Your task to perform on an android device: Go to internet settings Image 0: 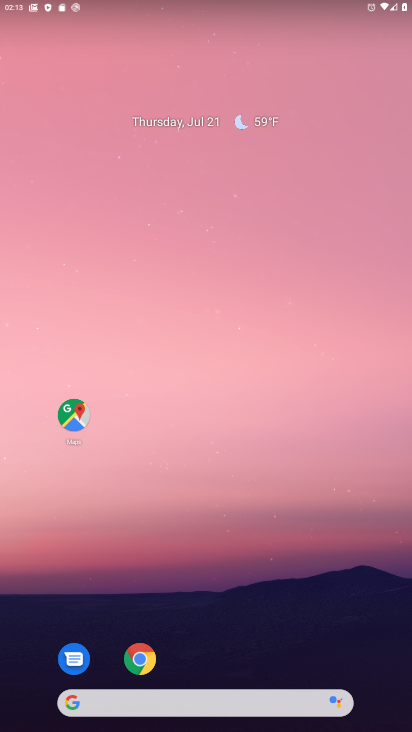
Step 0: press home button
Your task to perform on an android device: Go to internet settings Image 1: 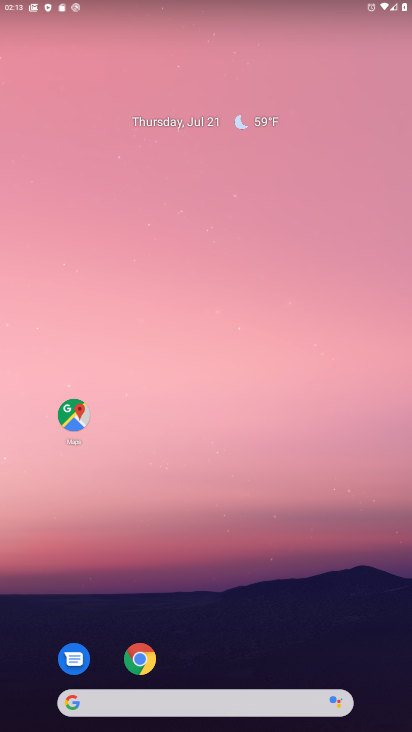
Step 1: drag from (241, 481) to (198, 30)
Your task to perform on an android device: Go to internet settings Image 2: 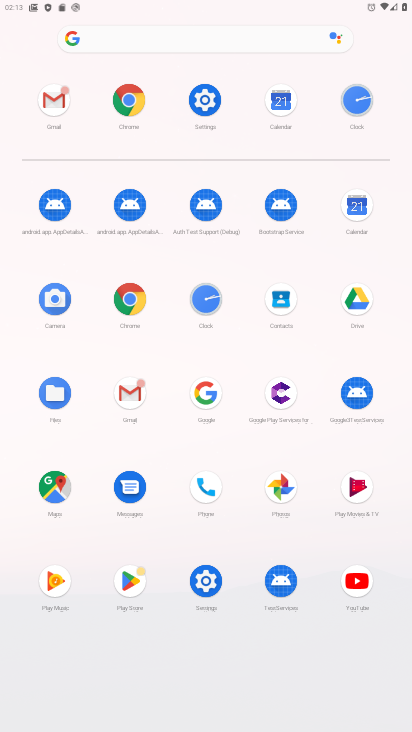
Step 2: click (207, 93)
Your task to perform on an android device: Go to internet settings Image 3: 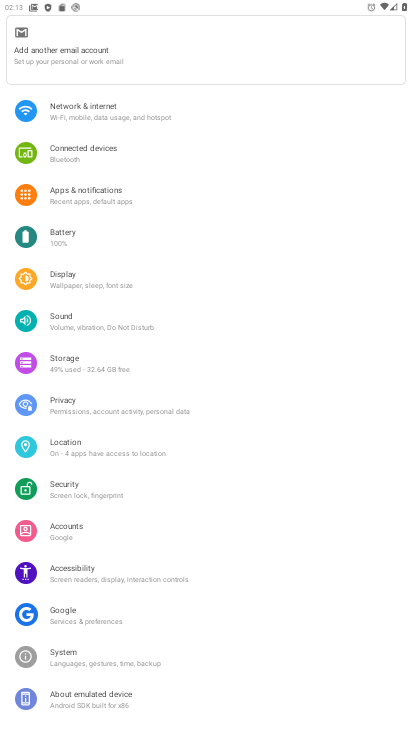
Step 3: click (92, 116)
Your task to perform on an android device: Go to internet settings Image 4: 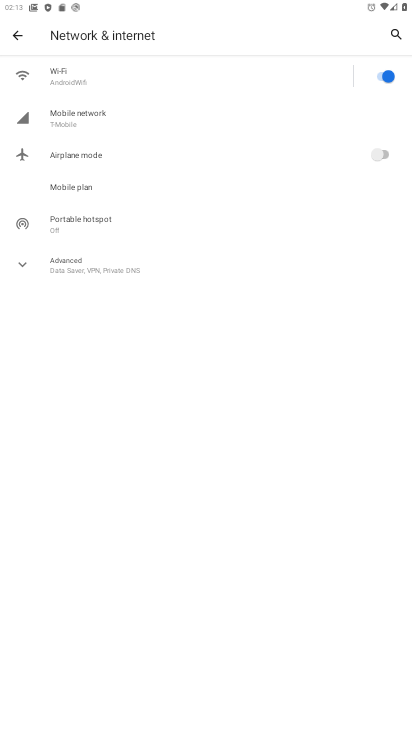
Step 4: click (133, 274)
Your task to perform on an android device: Go to internet settings Image 5: 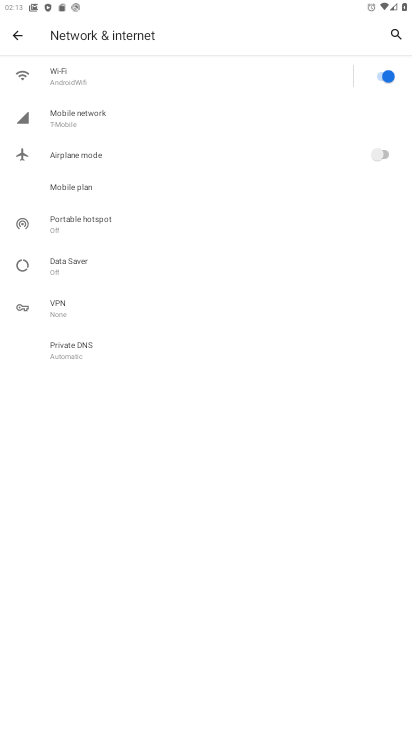
Step 5: task complete